Your task to perform on an android device: Go to display settings Image 0: 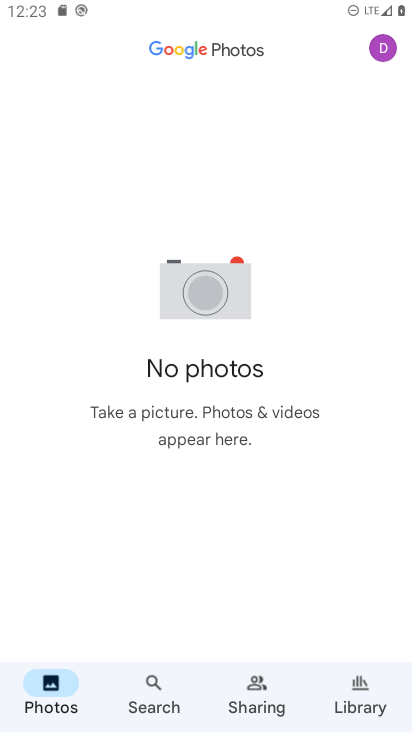
Step 0: press home button
Your task to perform on an android device: Go to display settings Image 1: 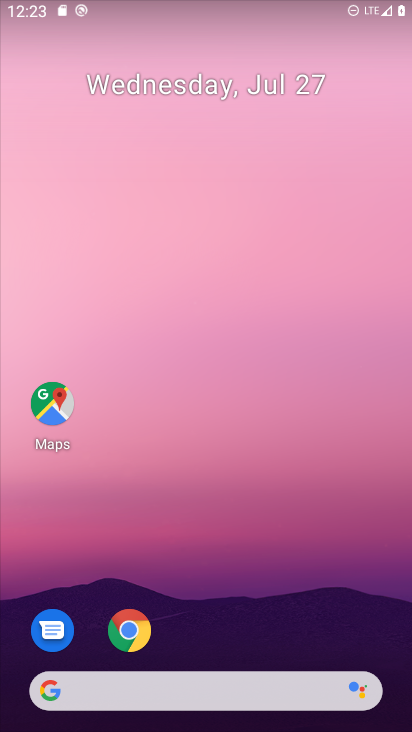
Step 1: drag from (372, 632) to (337, 328)
Your task to perform on an android device: Go to display settings Image 2: 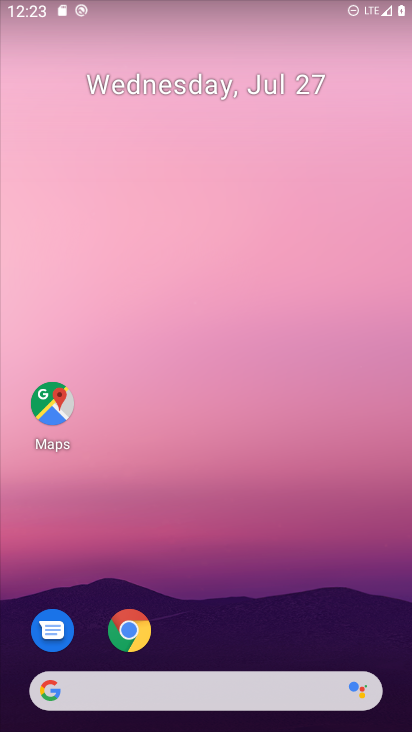
Step 2: drag from (369, 641) to (340, 148)
Your task to perform on an android device: Go to display settings Image 3: 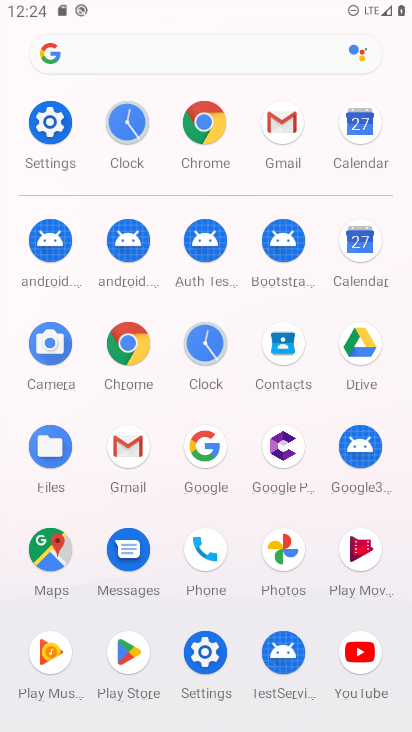
Step 3: click (205, 653)
Your task to perform on an android device: Go to display settings Image 4: 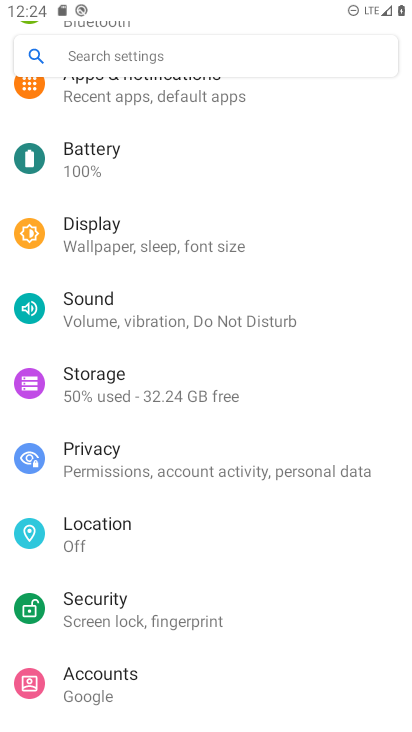
Step 4: click (98, 208)
Your task to perform on an android device: Go to display settings Image 5: 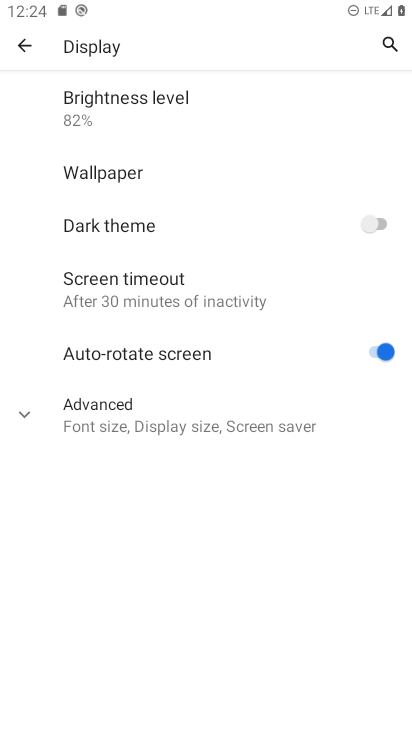
Step 5: click (28, 414)
Your task to perform on an android device: Go to display settings Image 6: 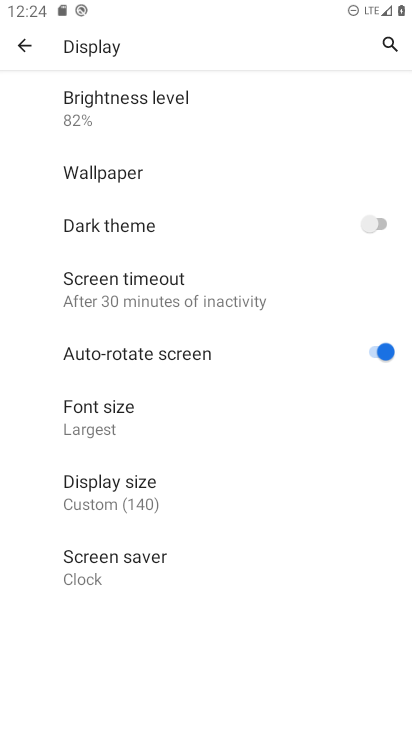
Step 6: task complete